Your task to perform on an android device: turn off smart reply in the gmail app Image 0: 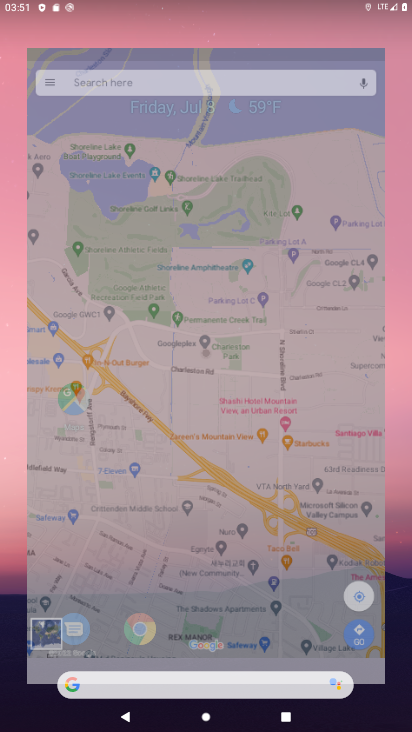
Step 0: drag from (213, 649) to (210, 84)
Your task to perform on an android device: turn off smart reply in the gmail app Image 1: 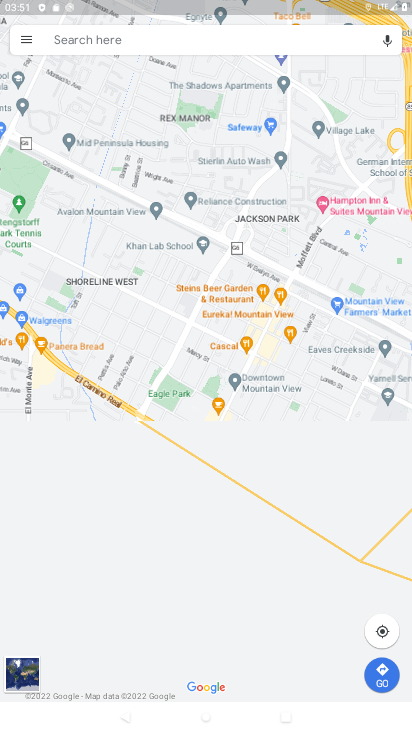
Step 1: press home button
Your task to perform on an android device: turn off smart reply in the gmail app Image 2: 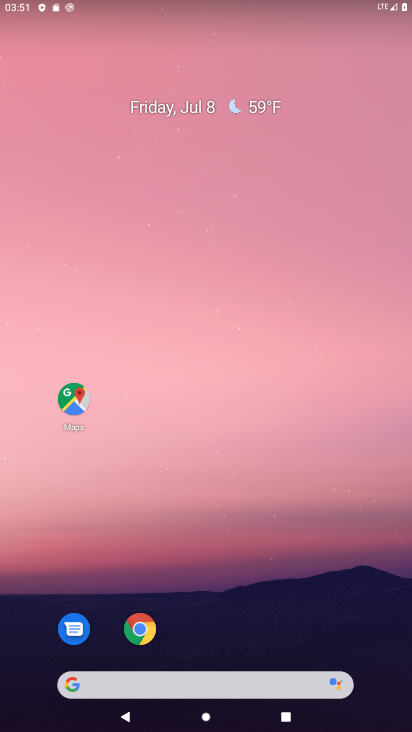
Step 2: drag from (214, 646) to (247, 21)
Your task to perform on an android device: turn off smart reply in the gmail app Image 3: 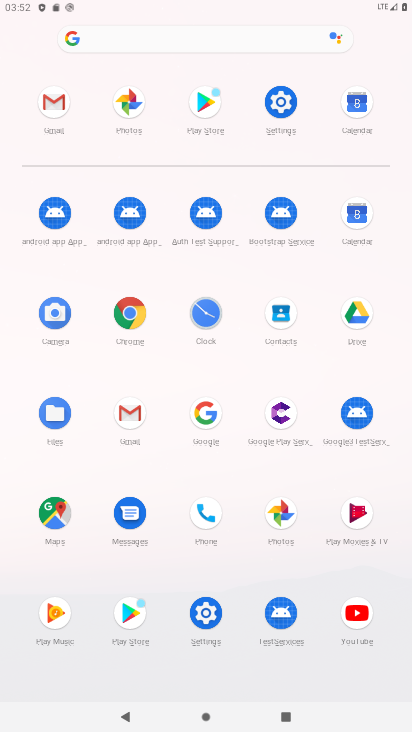
Step 3: click (130, 409)
Your task to perform on an android device: turn off smart reply in the gmail app Image 4: 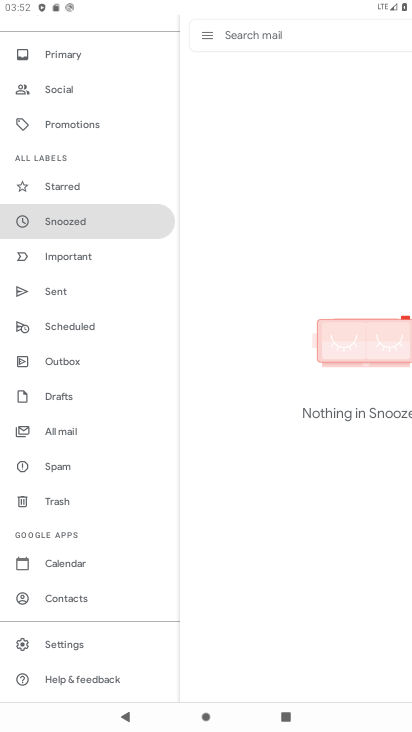
Step 4: click (81, 644)
Your task to perform on an android device: turn off smart reply in the gmail app Image 5: 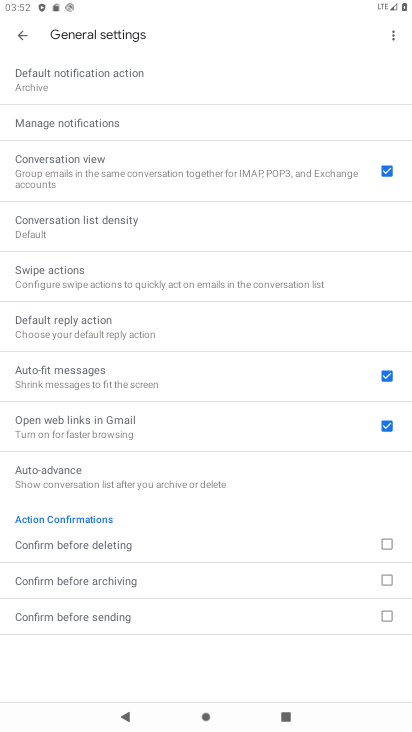
Step 5: click (18, 37)
Your task to perform on an android device: turn off smart reply in the gmail app Image 6: 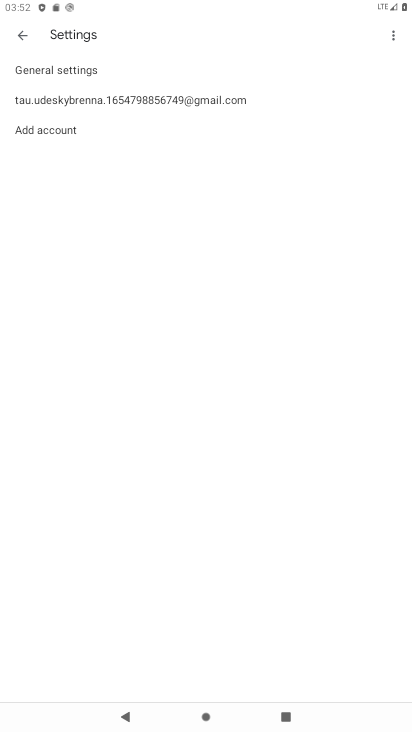
Step 6: click (80, 94)
Your task to perform on an android device: turn off smart reply in the gmail app Image 7: 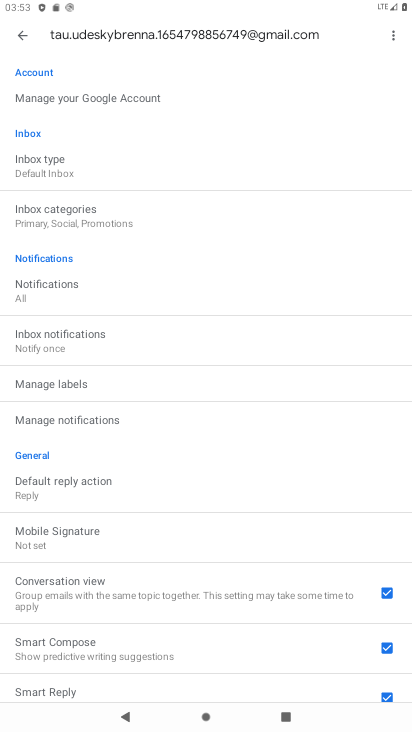
Step 7: drag from (162, 662) to (171, 412)
Your task to perform on an android device: turn off smart reply in the gmail app Image 8: 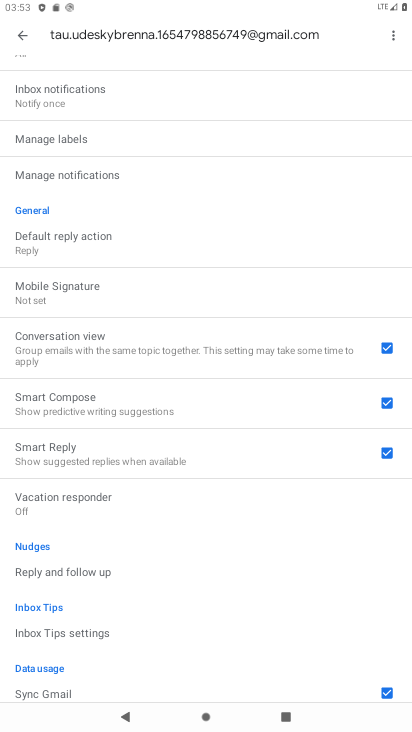
Step 8: click (390, 451)
Your task to perform on an android device: turn off smart reply in the gmail app Image 9: 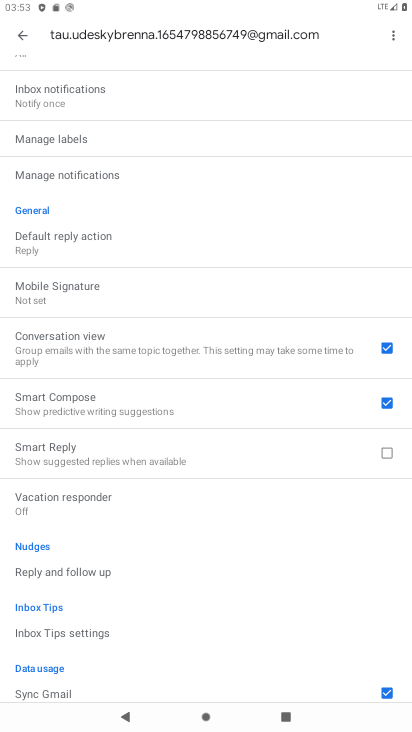
Step 9: task complete